Your task to perform on an android device: Open Google Maps Image 0: 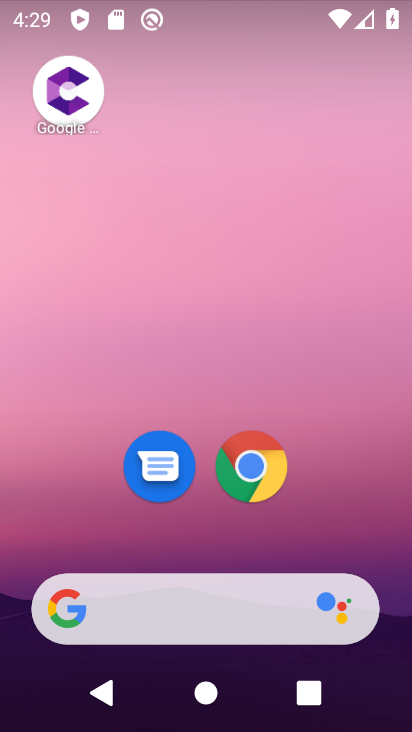
Step 0: drag from (401, 618) to (348, 54)
Your task to perform on an android device: Open Google Maps Image 1: 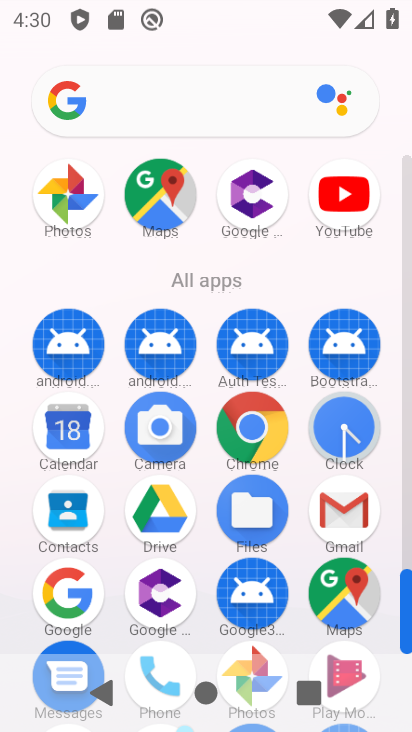
Step 1: click (346, 589)
Your task to perform on an android device: Open Google Maps Image 2: 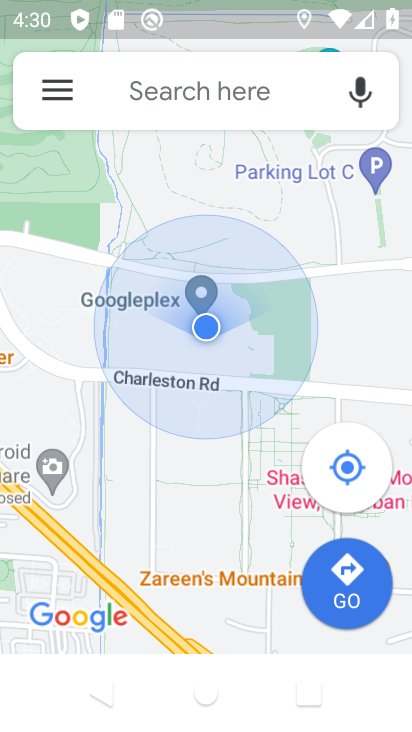
Step 2: task complete